Your task to perform on an android device: Go to Yahoo.com Image 0: 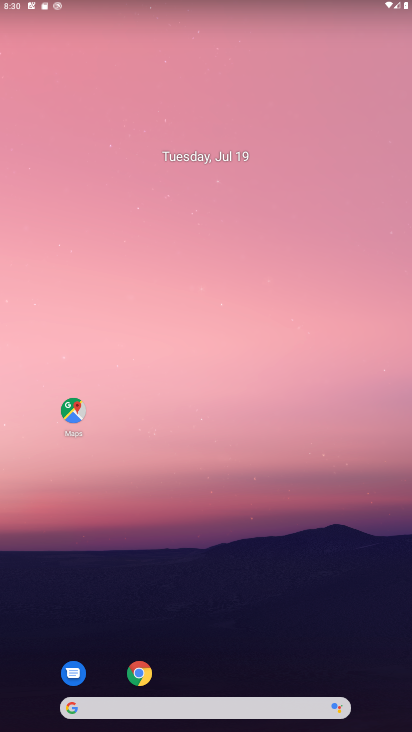
Step 0: click (139, 672)
Your task to perform on an android device: Go to Yahoo.com Image 1: 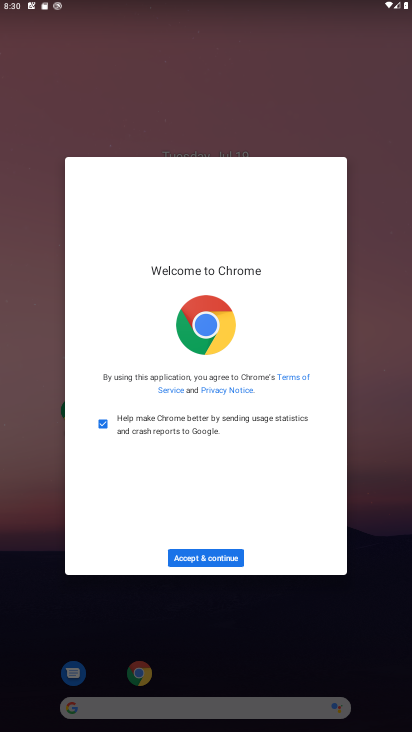
Step 1: click (208, 557)
Your task to perform on an android device: Go to Yahoo.com Image 2: 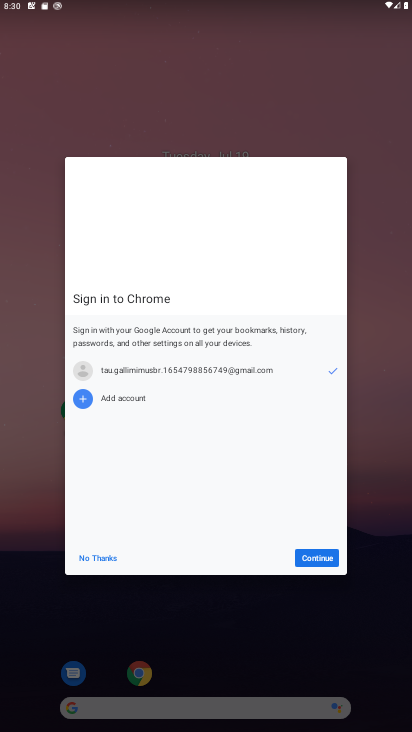
Step 2: click (322, 556)
Your task to perform on an android device: Go to Yahoo.com Image 3: 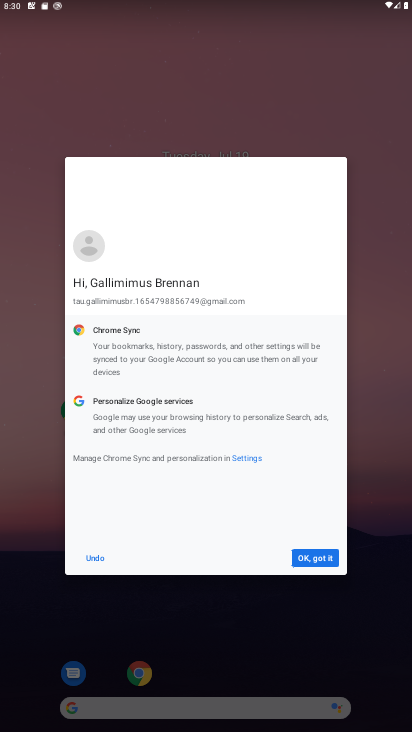
Step 3: click (322, 556)
Your task to perform on an android device: Go to Yahoo.com Image 4: 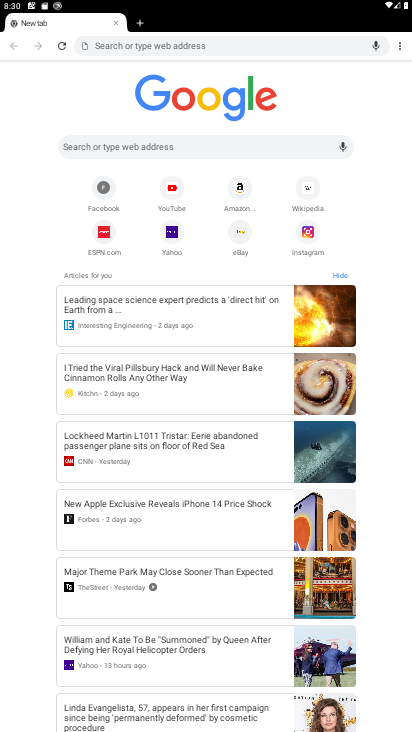
Step 4: type "yahoo.com"
Your task to perform on an android device: Go to Yahoo.com Image 5: 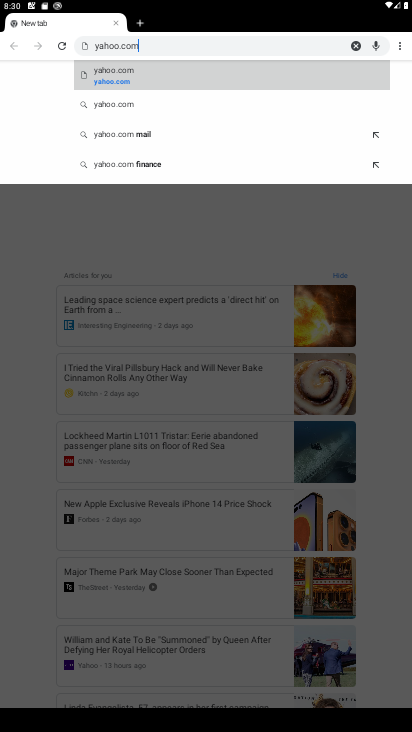
Step 5: click (108, 72)
Your task to perform on an android device: Go to Yahoo.com Image 6: 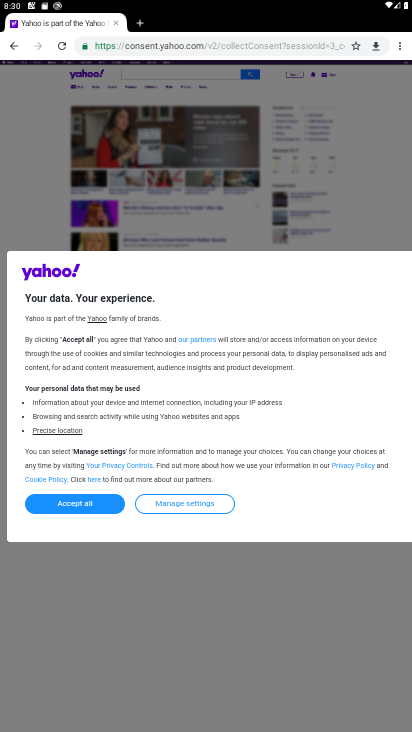
Step 6: click (70, 507)
Your task to perform on an android device: Go to Yahoo.com Image 7: 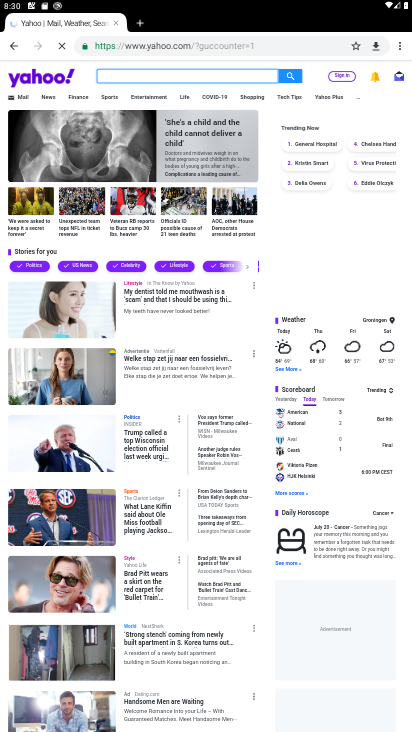
Step 7: task complete